Your task to perform on an android device: turn off javascript in the chrome app Image 0: 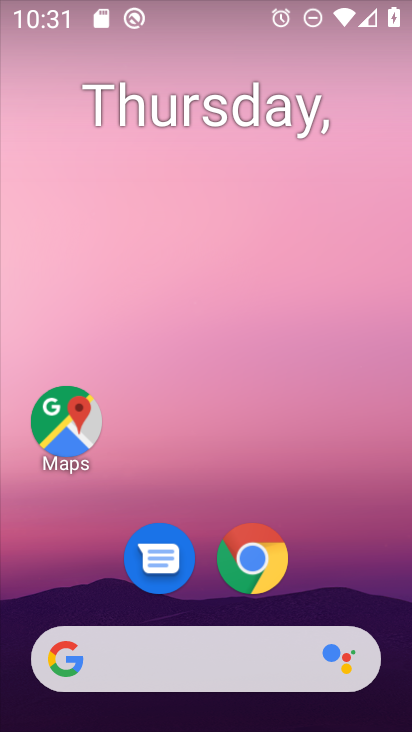
Step 0: click (250, 562)
Your task to perform on an android device: turn off javascript in the chrome app Image 1: 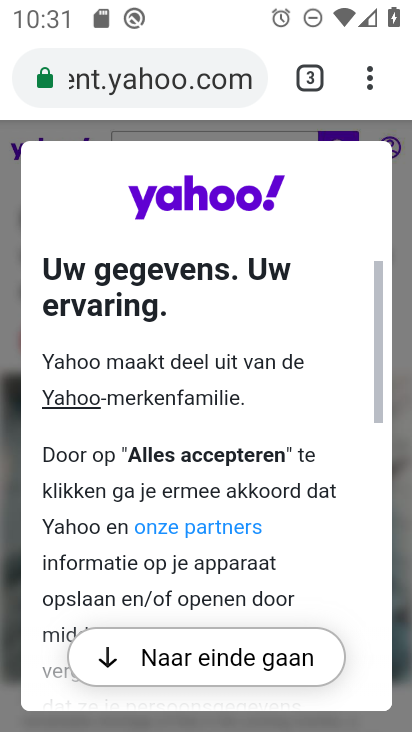
Step 1: click (366, 90)
Your task to perform on an android device: turn off javascript in the chrome app Image 2: 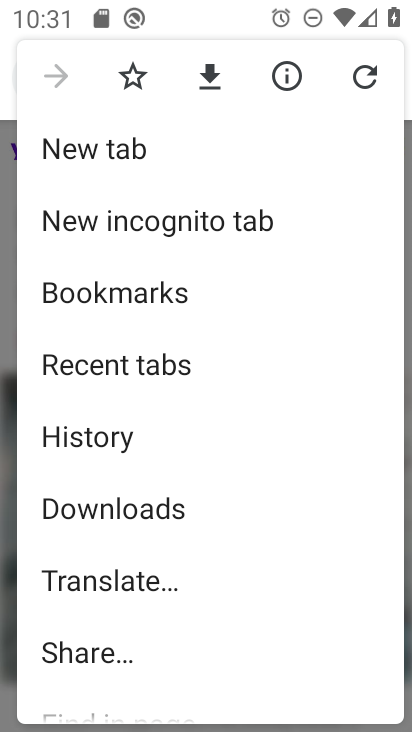
Step 2: drag from (188, 599) to (218, 257)
Your task to perform on an android device: turn off javascript in the chrome app Image 3: 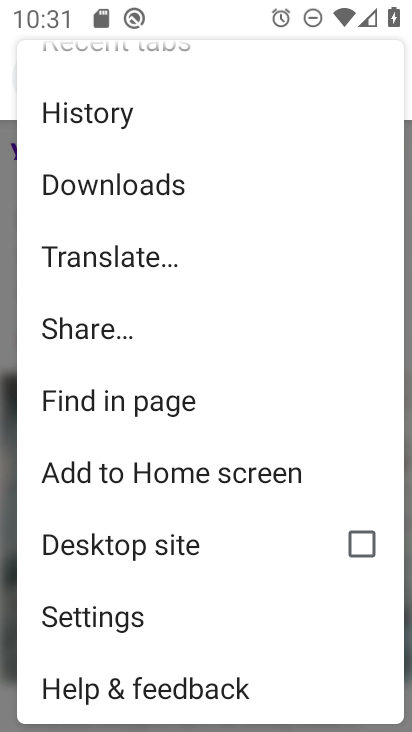
Step 3: click (150, 625)
Your task to perform on an android device: turn off javascript in the chrome app Image 4: 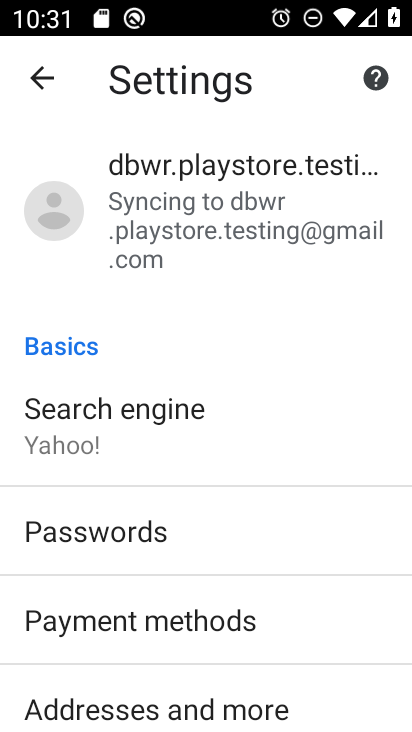
Step 4: drag from (280, 655) to (249, 160)
Your task to perform on an android device: turn off javascript in the chrome app Image 5: 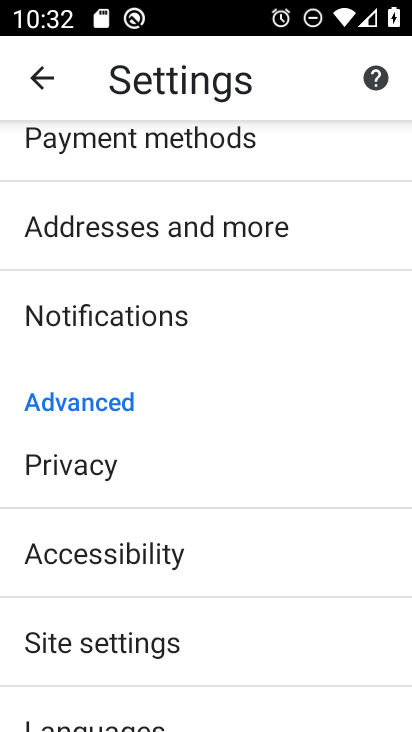
Step 5: click (159, 629)
Your task to perform on an android device: turn off javascript in the chrome app Image 6: 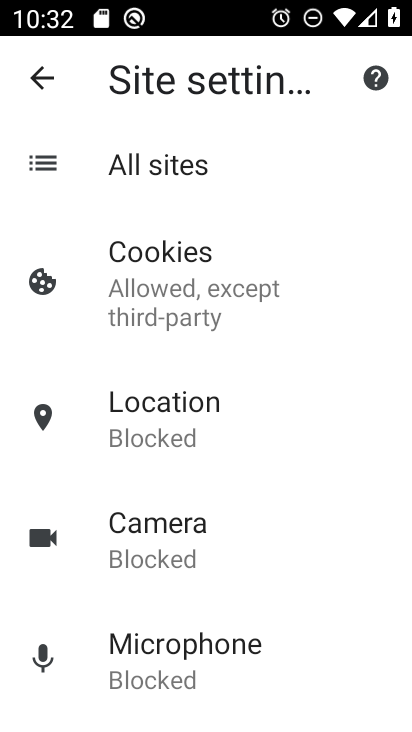
Step 6: drag from (221, 669) to (241, 338)
Your task to perform on an android device: turn off javascript in the chrome app Image 7: 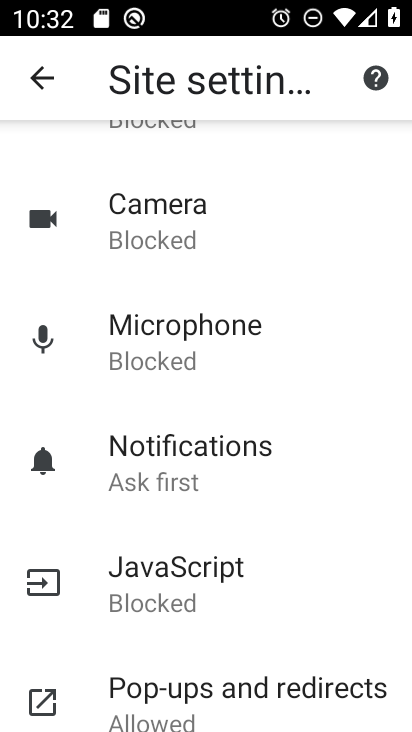
Step 7: click (117, 568)
Your task to perform on an android device: turn off javascript in the chrome app Image 8: 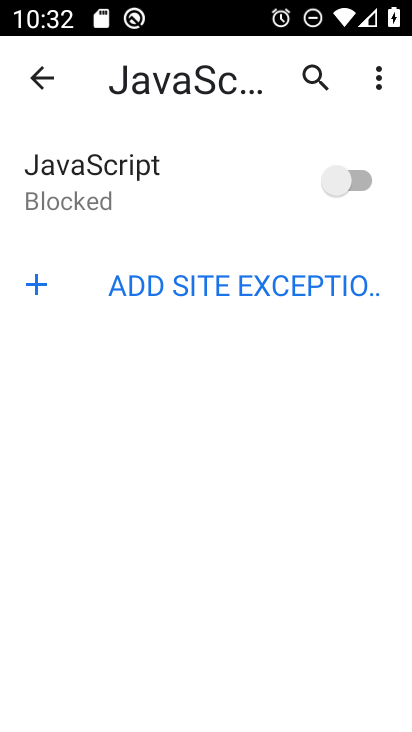
Step 8: task complete